Your task to perform on an android device: turn off location Image 0: 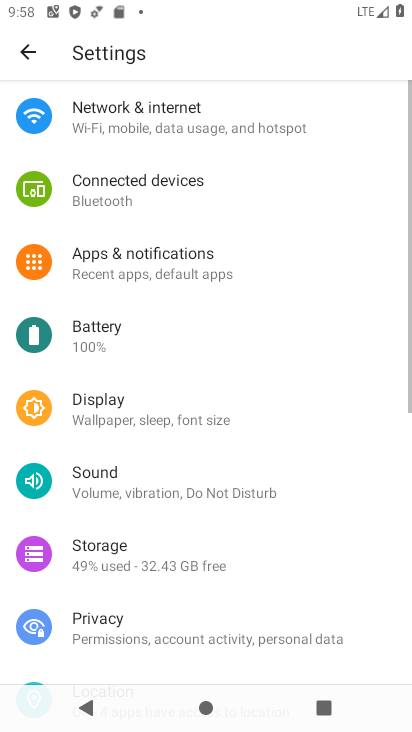
Step 0: drag from (99, 594) to (143, 159)
Your task to perform on an android device: turn off location Image 1: 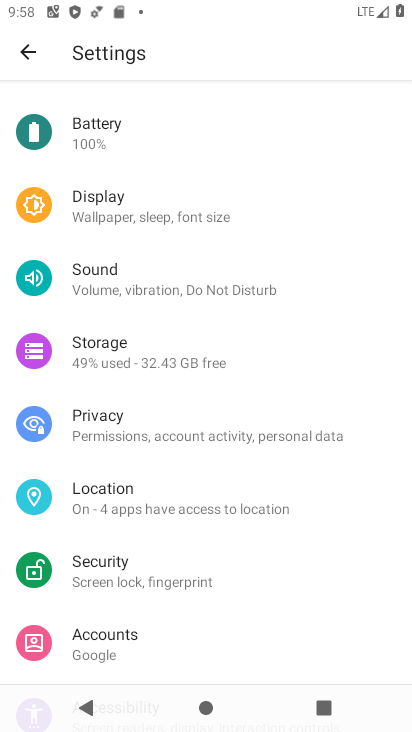
Step 1: click (88, 480)
Your task to perform on an android device: turn off location Image 2: 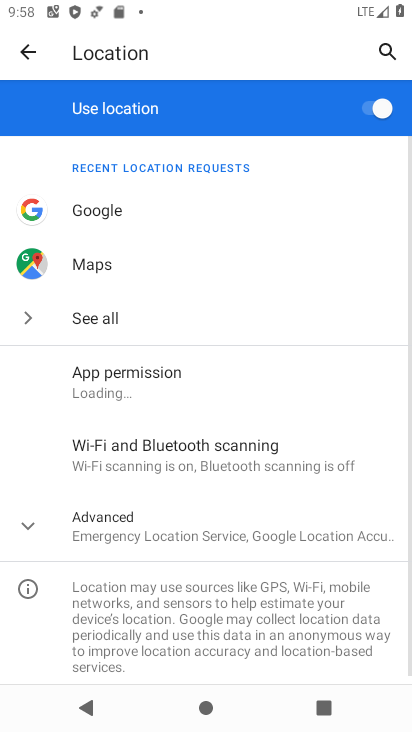
Step 2: click (362, 109)
Your task to perform on an android device: turn off location Image 3: 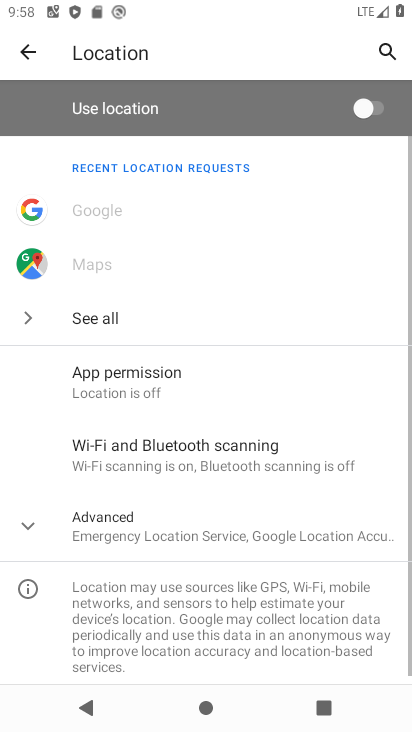
Step 3: task complete